Your task to perform on an android device: Go to display settings Image 0: 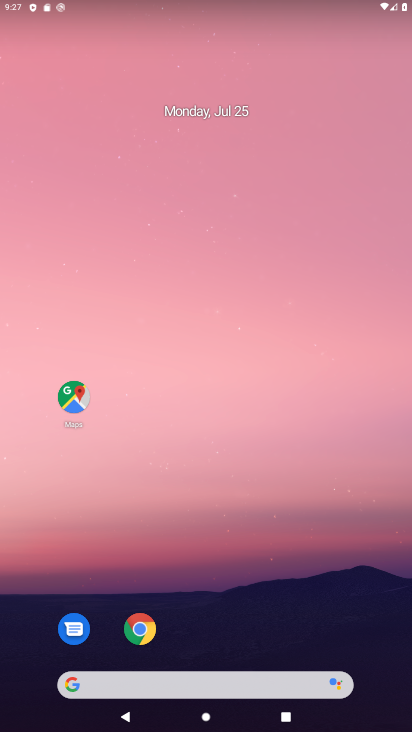
Step 0: drag from (277, 101) to (259, 7)
Your task to perform on an android device: Go to display settings Image 1: 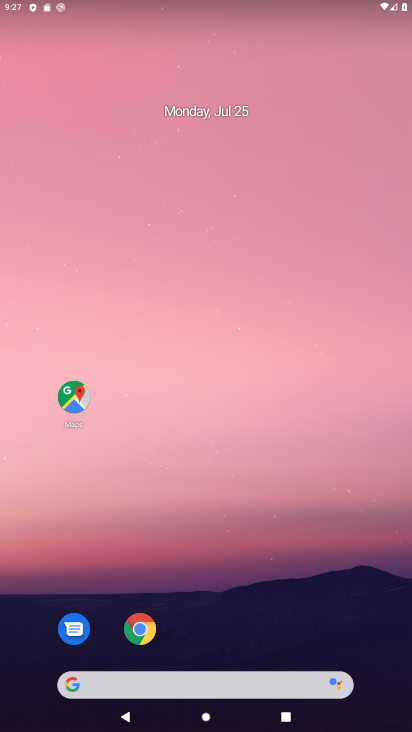
Step 1: drag from (206, 400) to (198, 38)
Your task to perform on an android device: Go to display settings Image 2: 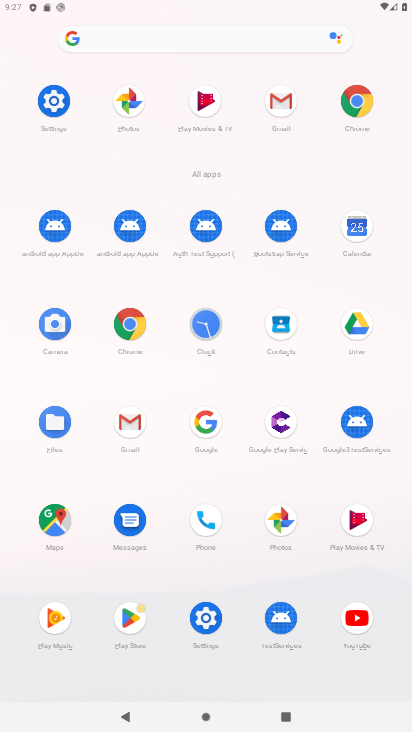
Step 2: click (56, 90)
Your task to perform on an android device: Go to display settings Image 3: 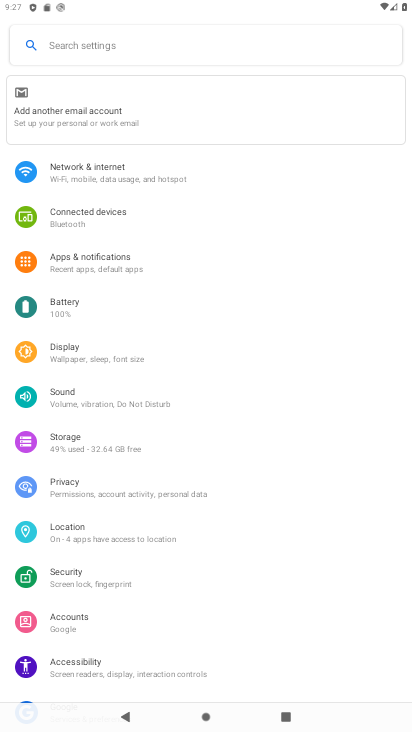
Step 3: click (80, 357)
Your task to perform on an android device: Go to display settings Image 4: 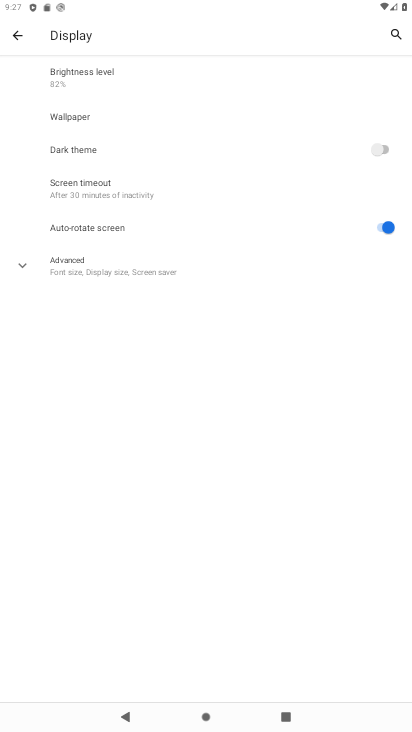
Step 4: task complete